Your task to perform on an android device: see tabs open on other devices in the chrome app Image 0: 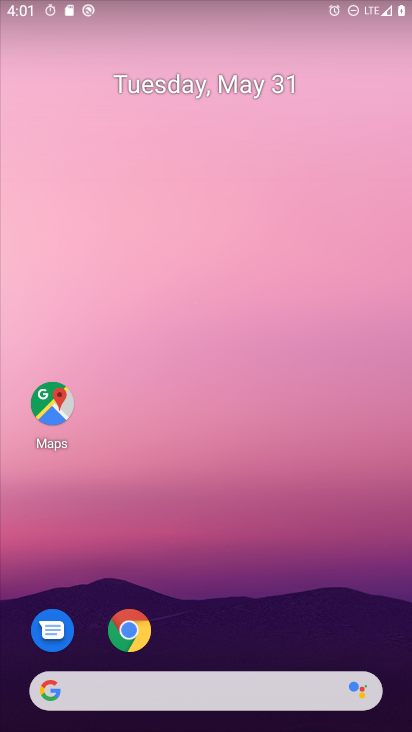
Step 0: drag from (135, 668) to (171, 5)
Your task to perform on an android device: see tabs open on other devices in the chrome app Image 1: 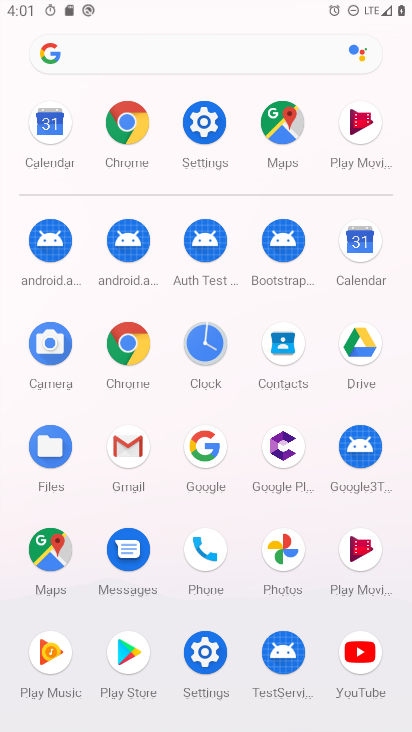
Step 1: click (128, 358)
Your task to perform on an android device: see tabs open on other devices in the chrome app Image 2: 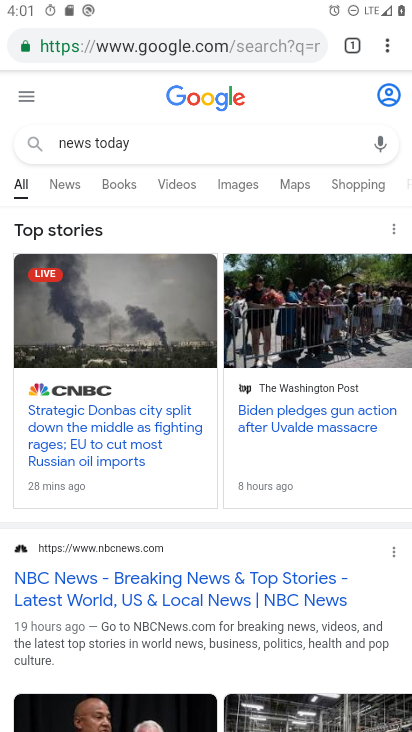
Step 2: task complete